Your task to perform on an android device: turn on priority inbox in the gmail app Image 0: 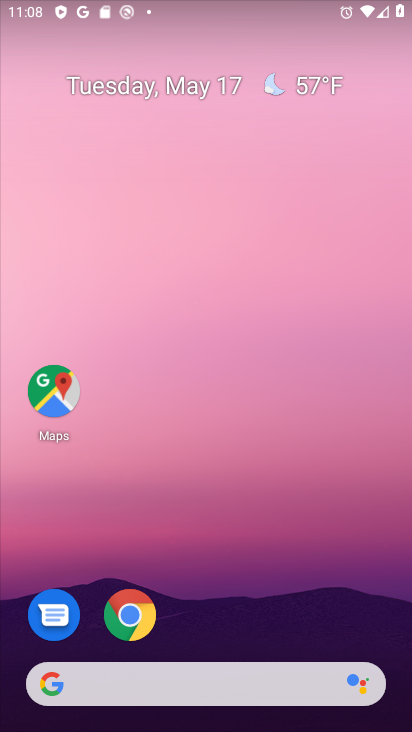
Step 0: drag from (278, 642) to (316, 209)
Your task to perform on an android device: turn on priority inbox in the gmail app Image 1: 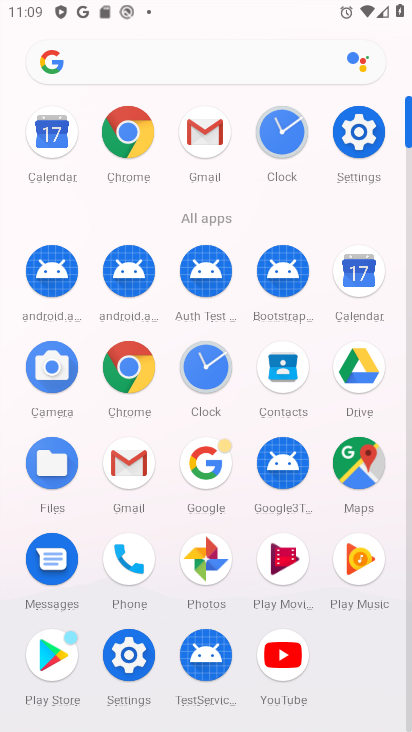
Step 1: click (204, 124)
Your task to perform on an android device: turn on priority inbox in the gmail app Image 2: 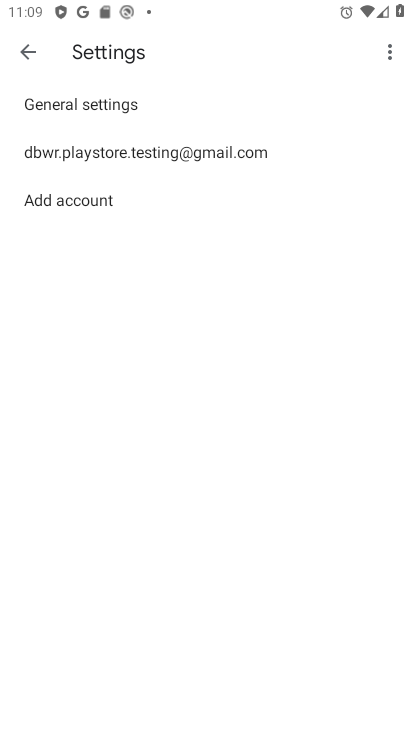
Step 2: click (180, 156)
Your task to perform on an android device: turn on priority inbox in the gmail app Image 3: 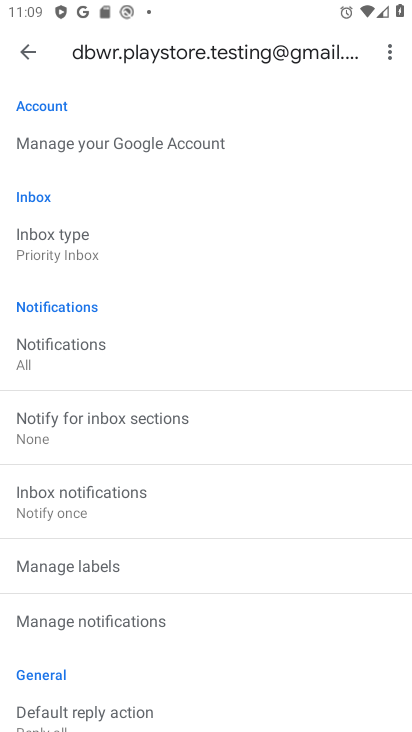
Step 3: click (89, 248)
Your task to perform on an android device: turn on priority inbox in the gmail app Image 4: 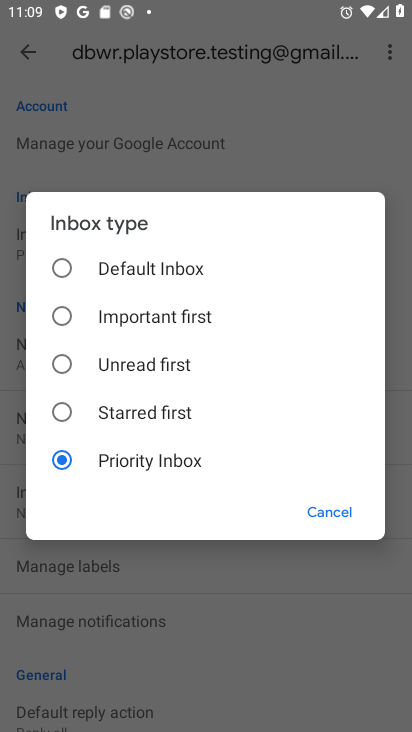
Step 4: task complete